Your task to perform on an android device: install app "Indeed Job Search" Image 0: 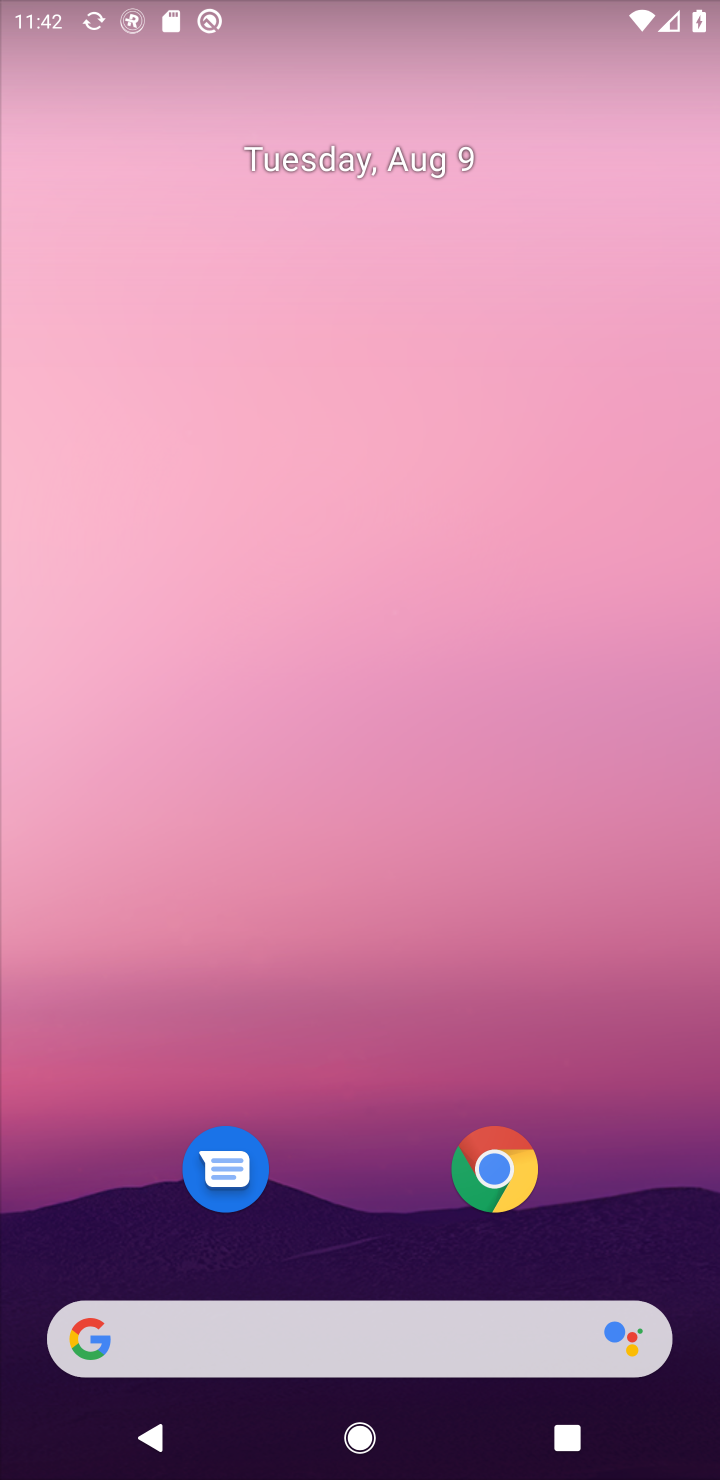
Step 0: press home button
Your task to perform on an android device: install app "Indeed Job Search" Image 1: 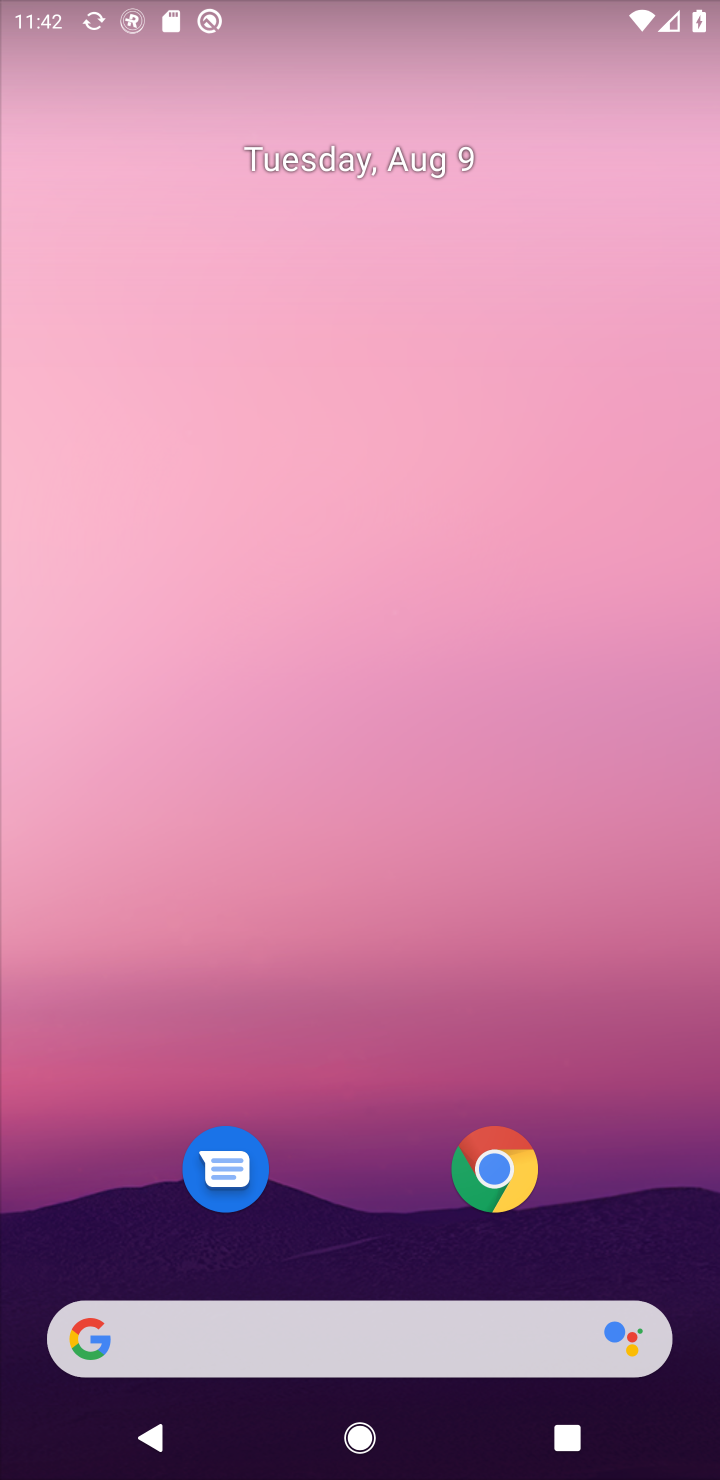
Step 1: drag from (639, 1163) to (666, 123)
Your task to perform on an android device: install app "Indeed Job Search" Image 2: 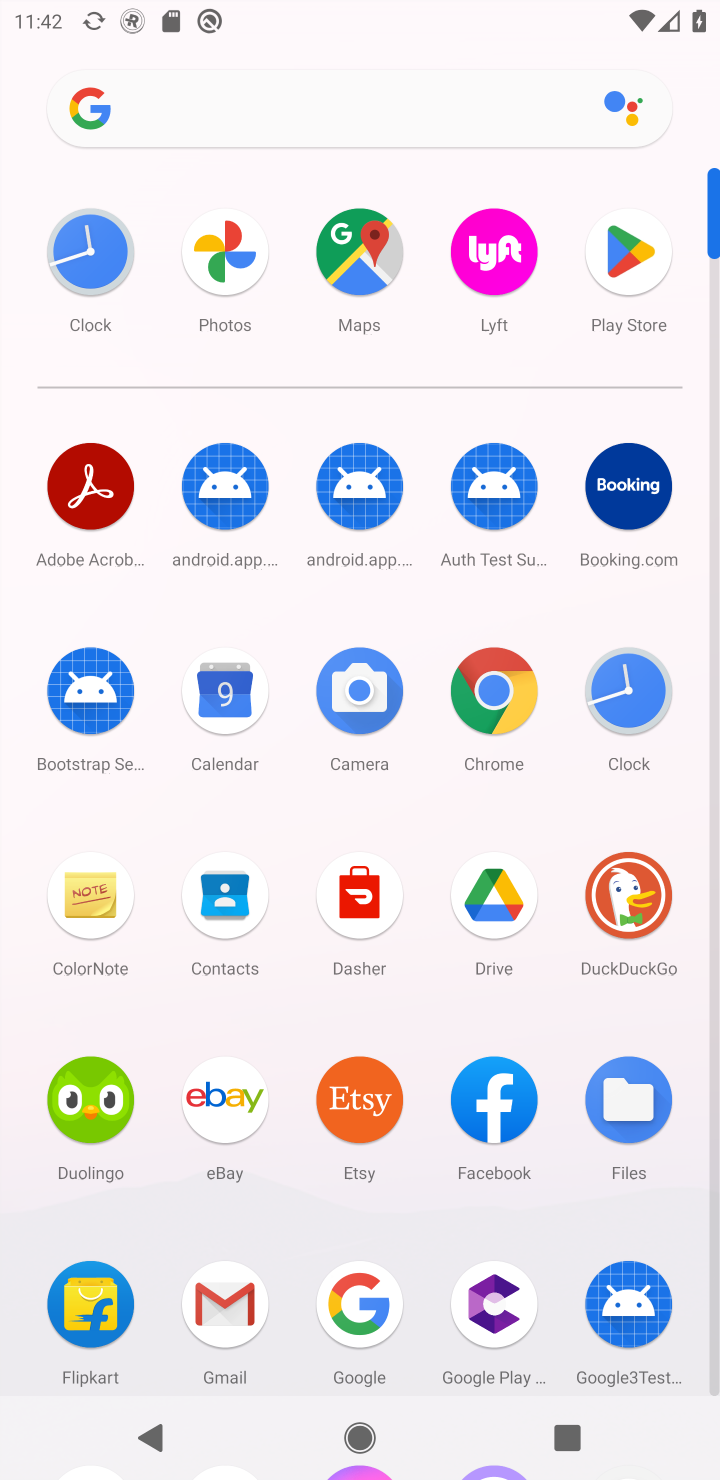
Step 2: click (630, 248)
Your task to perform on an android device: install app "Indeed Job Search" Image 3: 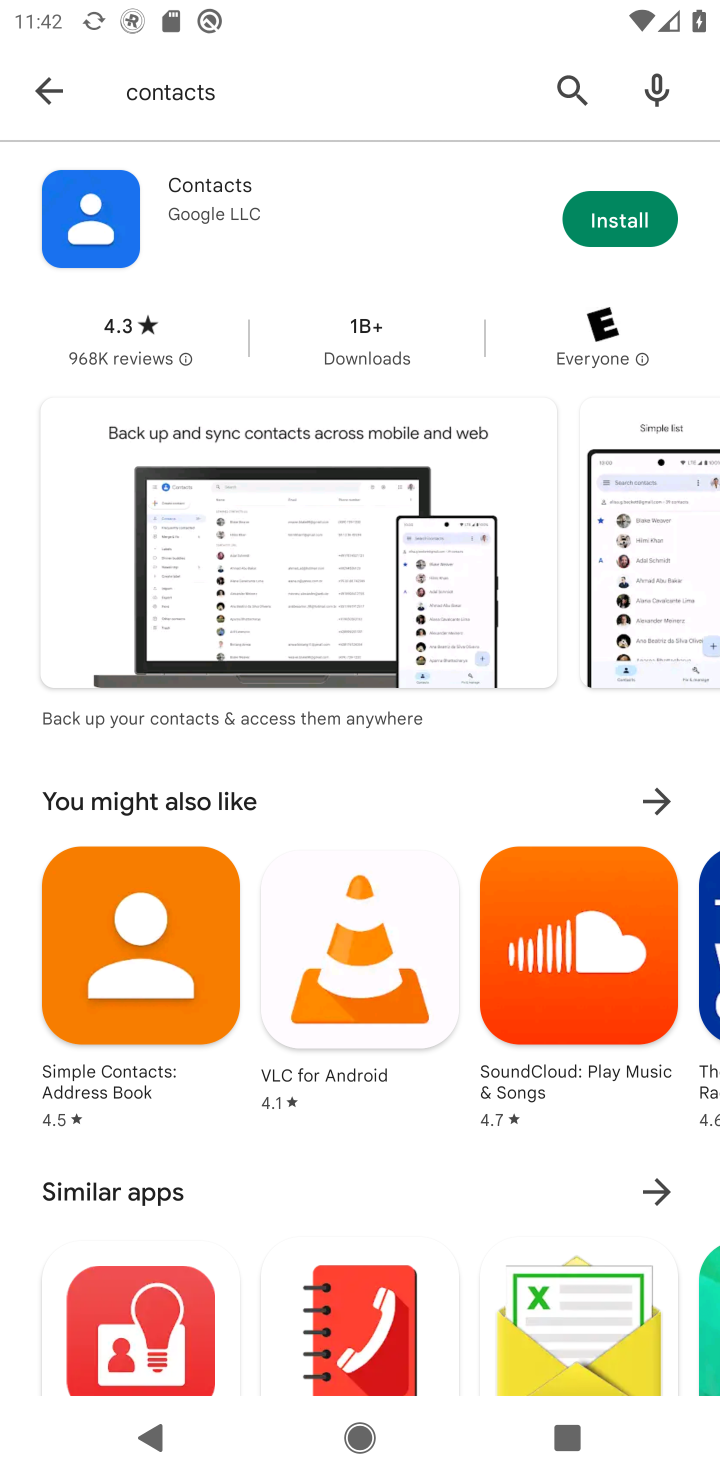
Step 3: click (560, 80)
Your task to perform on an android device: install app "Indeed Job Search" Image 4: 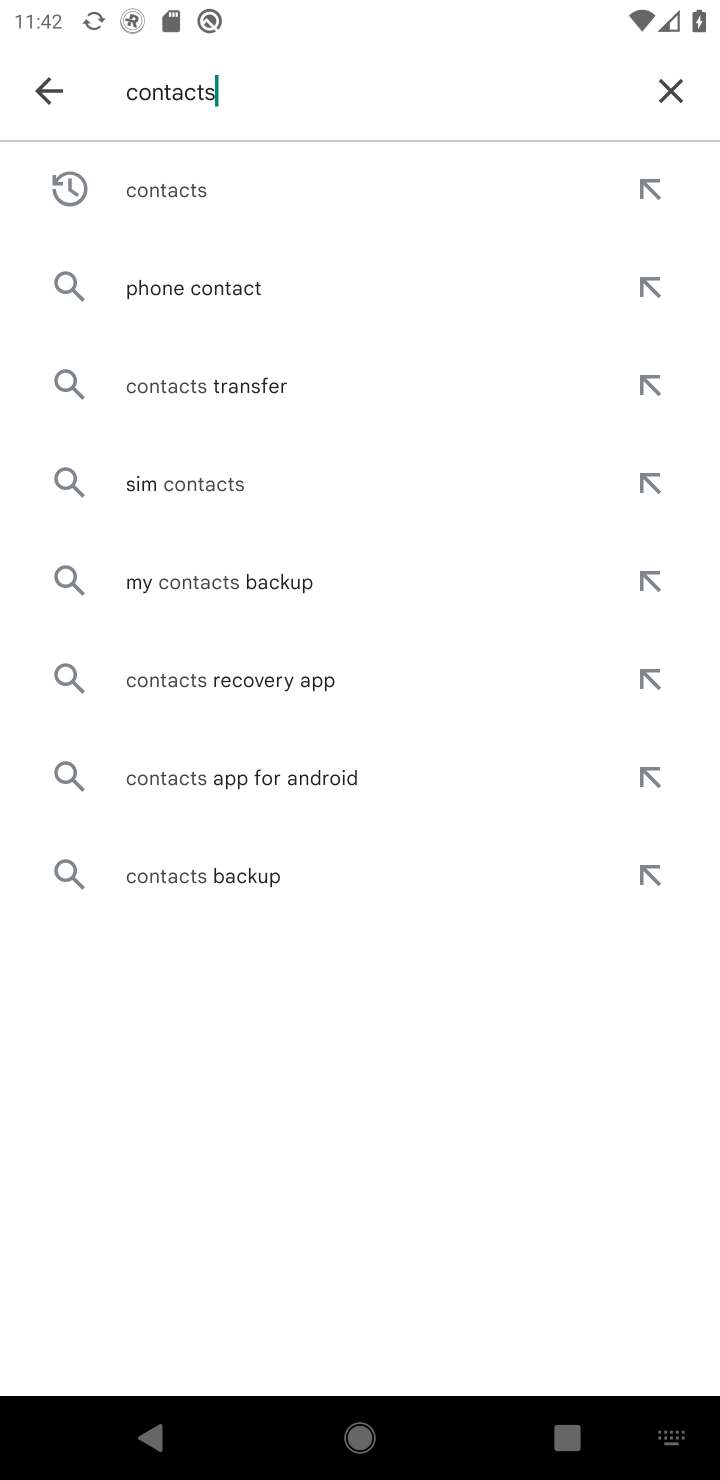
Step 4: click (665, 94)
Your task to perform on an android device: install app "Indeed Job Search" Image 5: 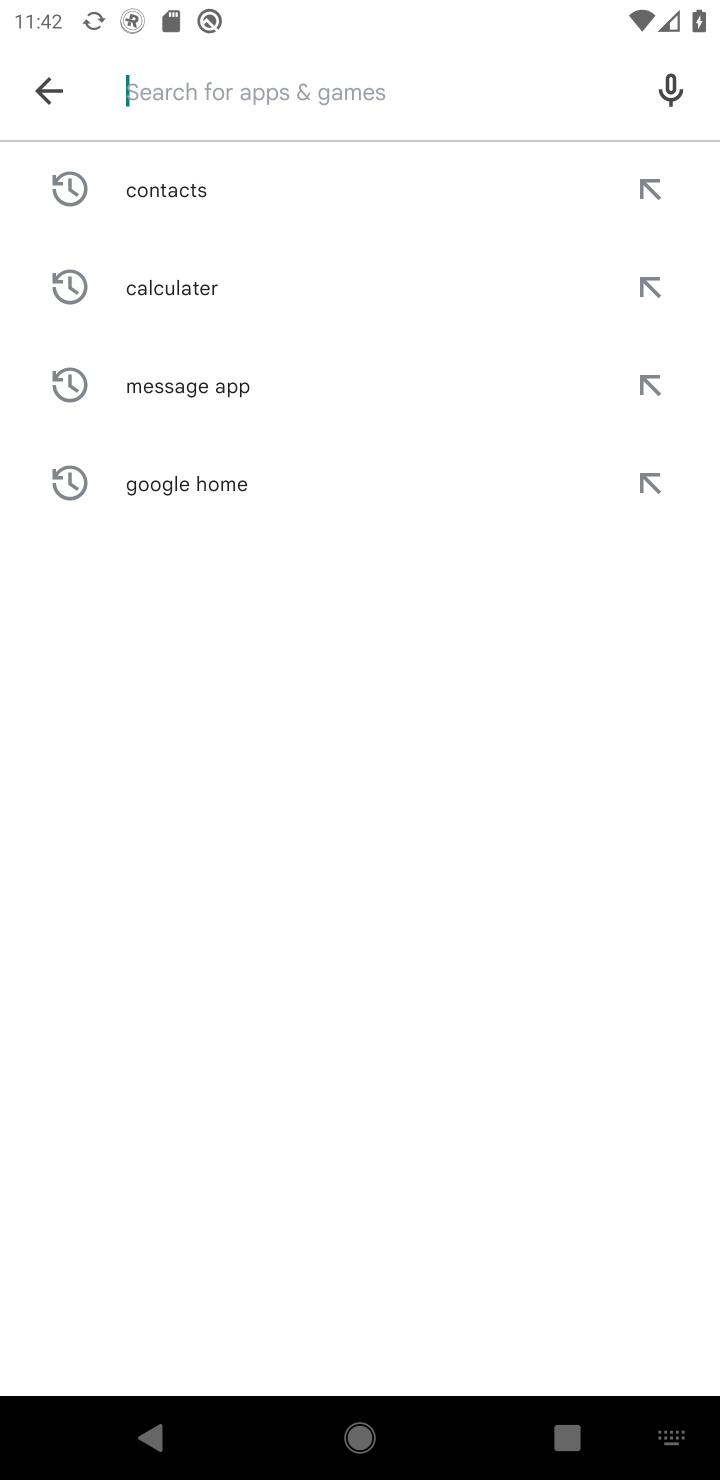
Step 5: type "indeed job search"
Your task to perform on an android device: install app "Indeed Job Search" Image 6: 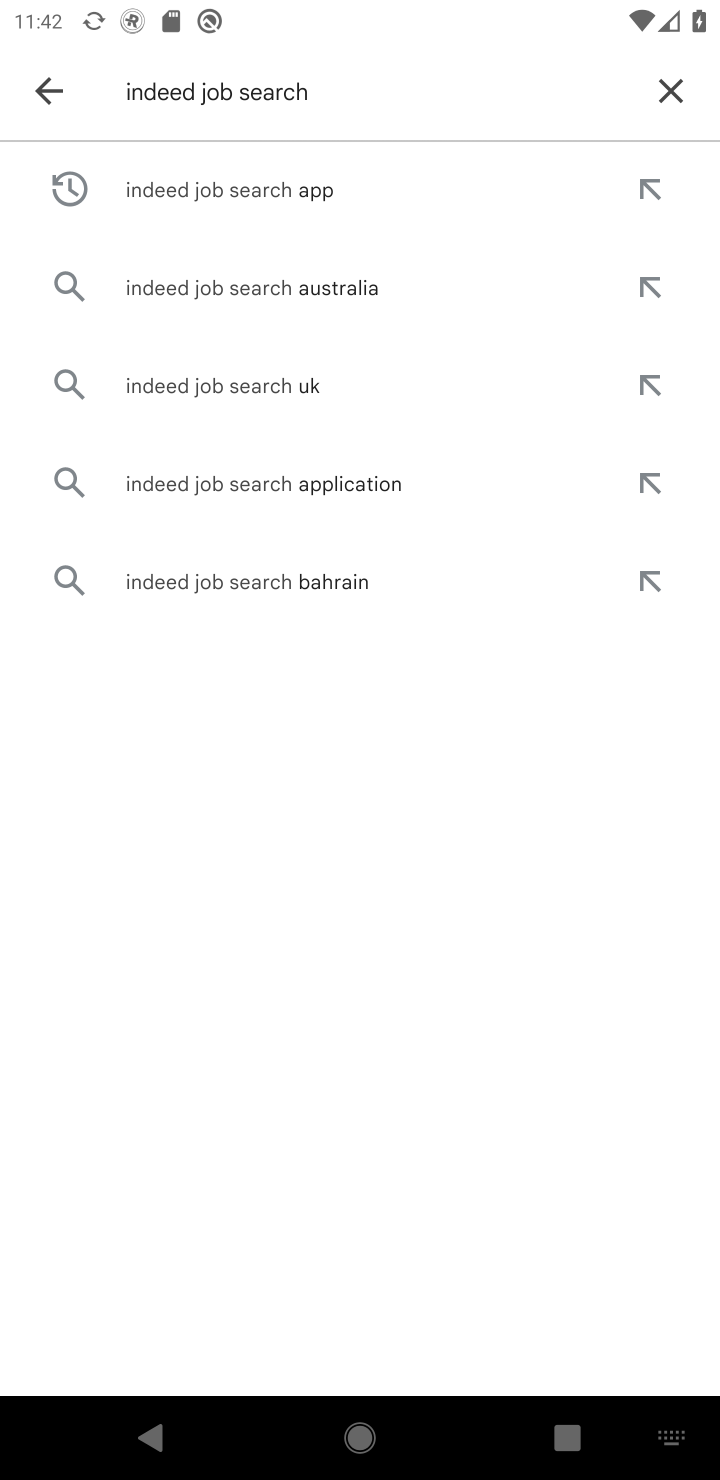
Step 6: click (329, 198)
Your task to perform on an android device: install app "Indeed Job Search" Image 7: 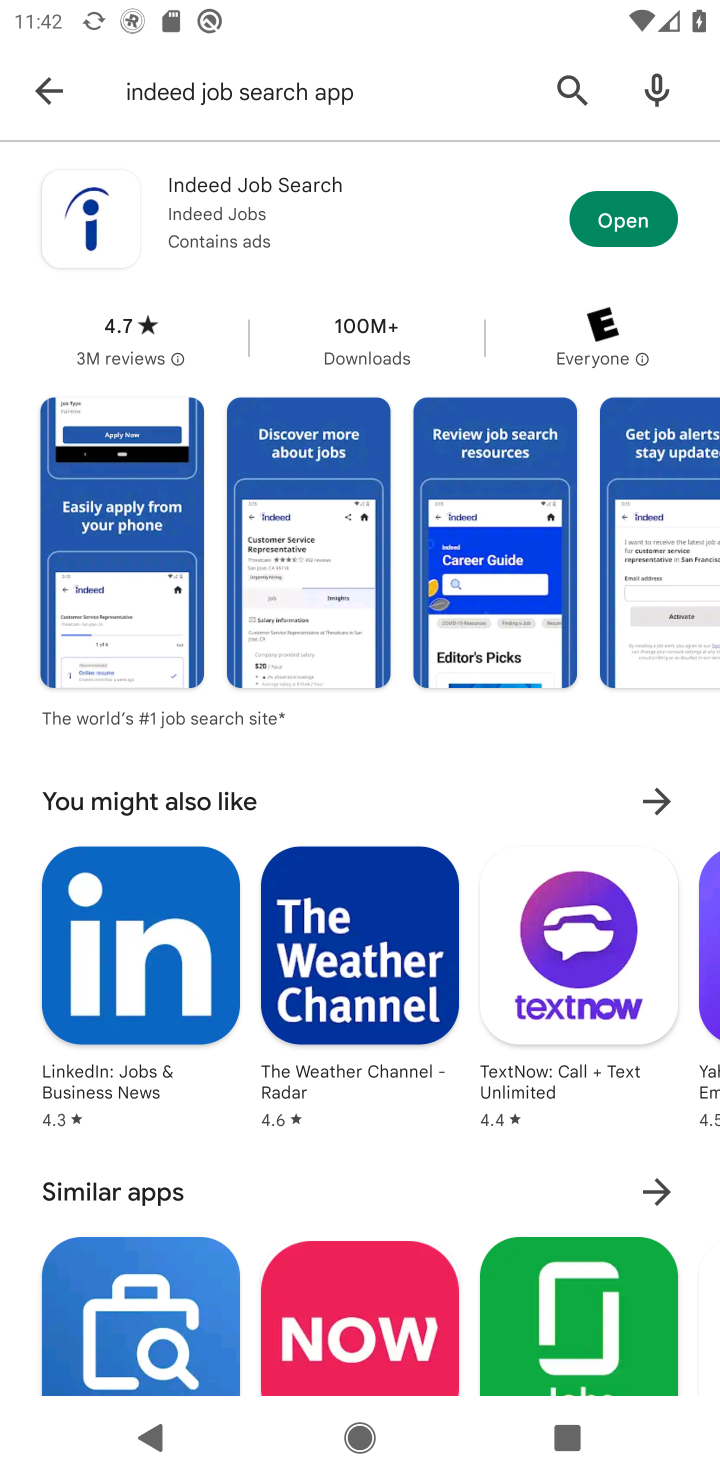
Step 7: click (627, 220)
Your task to perform on an android device: install app "Indeed Job Search" Image 8: 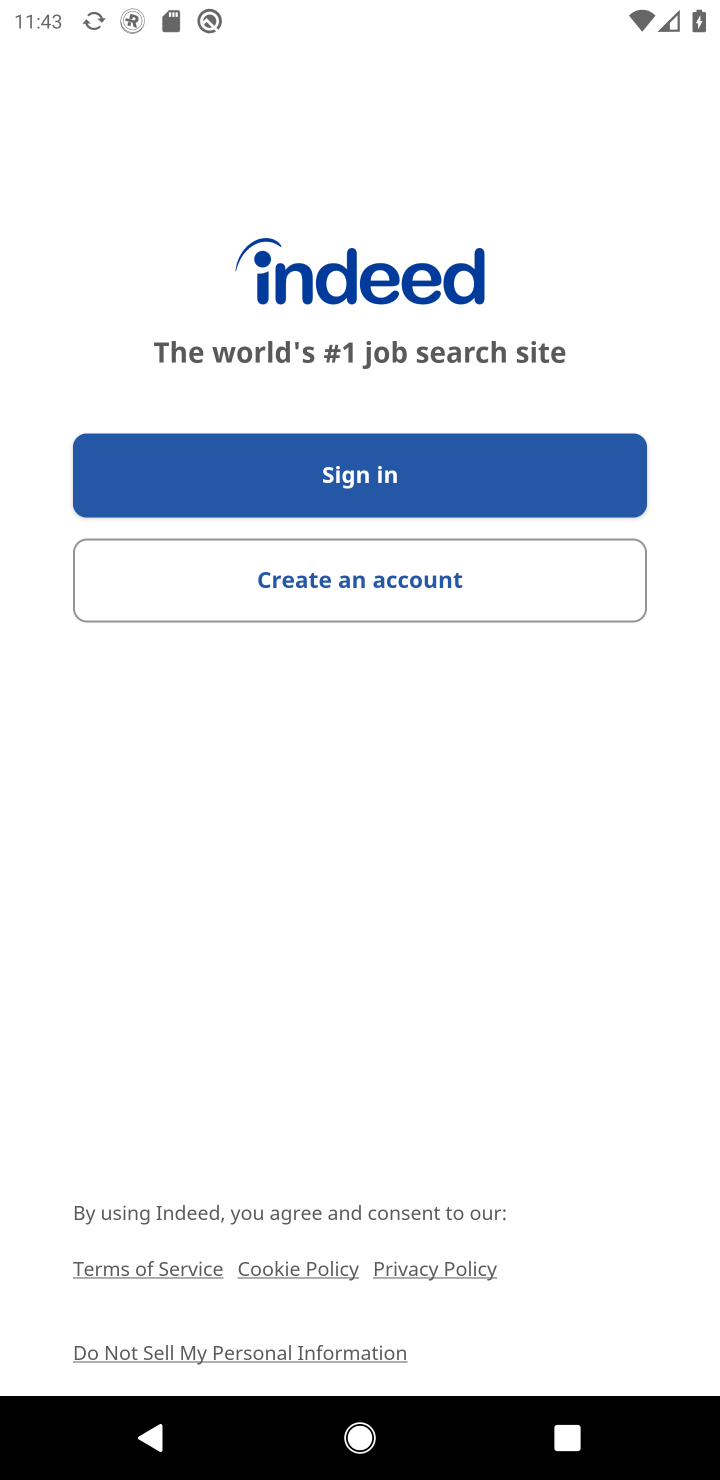
Step 8: task complete